Your task to perform on an android device: move a message to another label in the gmail app Image 0: 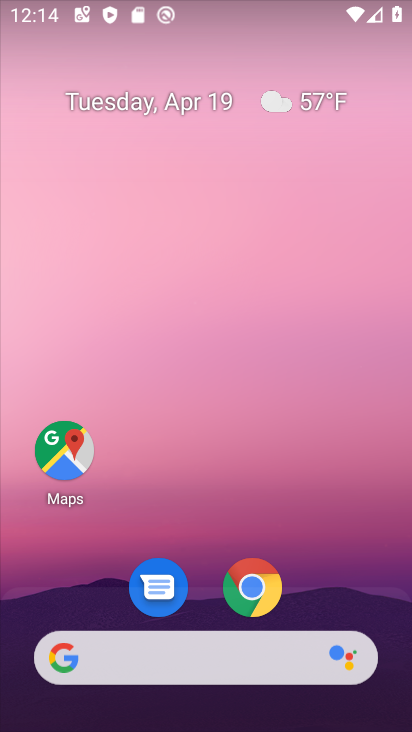
Step 0: drag from (219, 526) to (217, 187)
Your task to perform on an android device: move a message to another label in the gmail app Image 1: 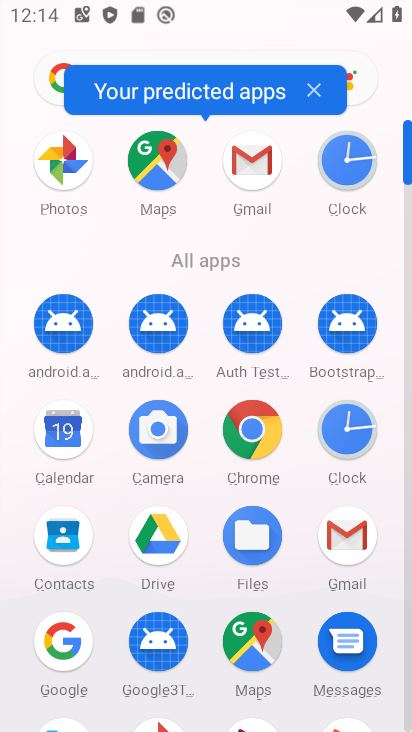
Step 1: click (244, 160)
Your task to perform on an android device: move a message to another label in the gmail app Image 2: 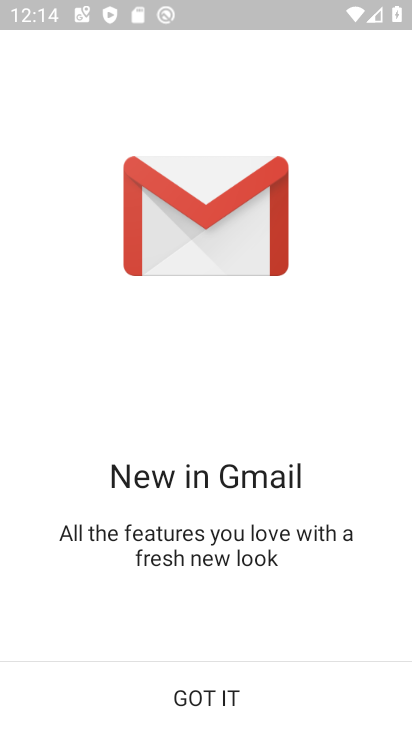
Step 2: click (234, 703)
Your task to perform on an android device: move a message to another label in the gmail app Image 3: 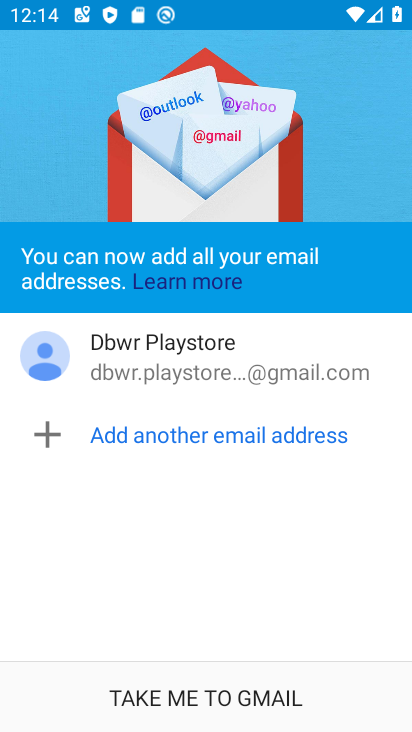
Step 3: click (205, 688)
Your task to perform on an android device: move a message to another label in the gmail app Image 4: 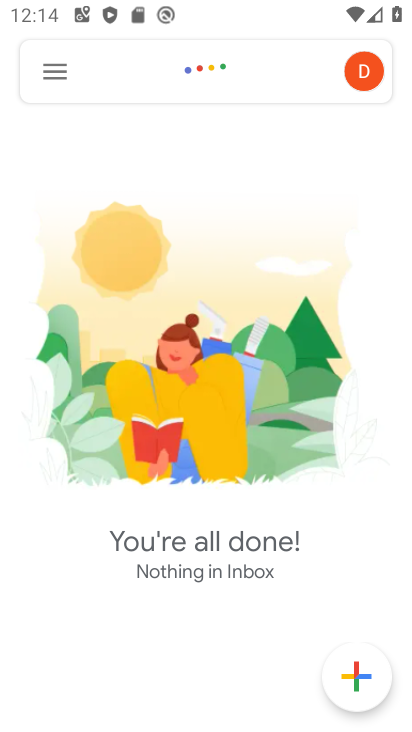
Step 4: click (365, 66)
Your task to perform on an android device: move a message to another label in the gmail app Image 5: 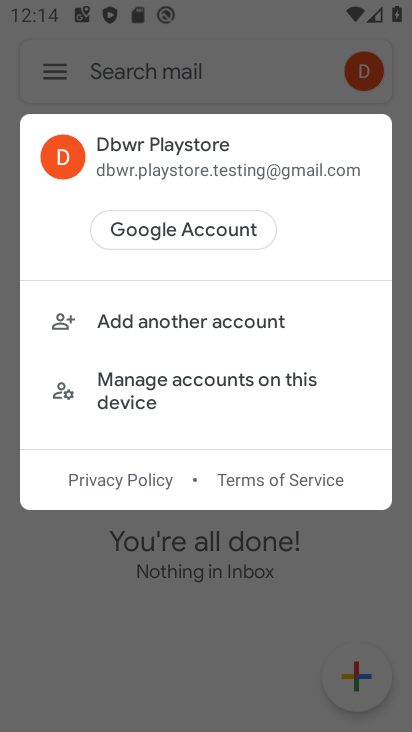
Step 5: click (193, 92)
Your task to perform on an android device: move a message to another label in the gmail app Image 6: 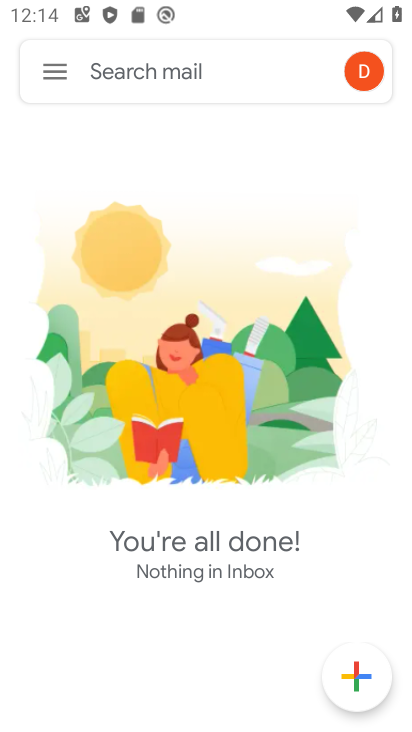
Step 6: click (47, 67)
Your task to perform on an android device: move a message to another label in the gmail app Image 7: 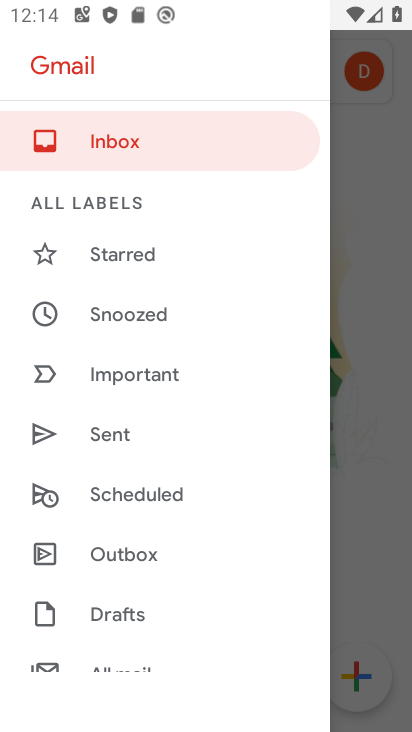
Step 7: click (143, 662)
Your task to perform on an android device: move a message to another label in the gmail app Image 8: 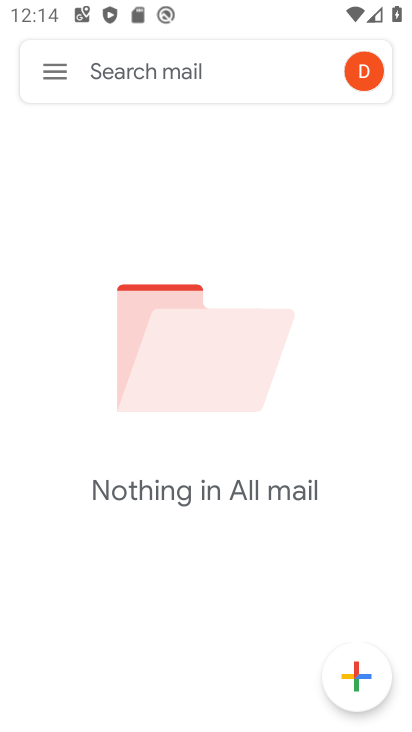
Step 8: task complete